Your task to perform on an android device: turn vacation reply on in the gmail app Image 0: 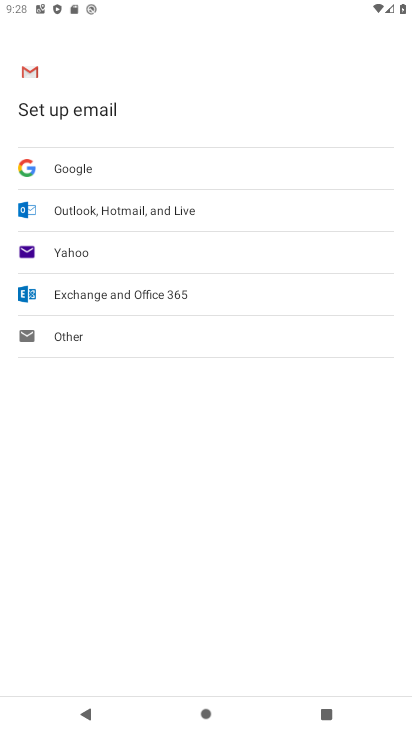
Step 0: press home button
Your task to perform on an android device: turn vacation reply on in the gmail app Image 1: 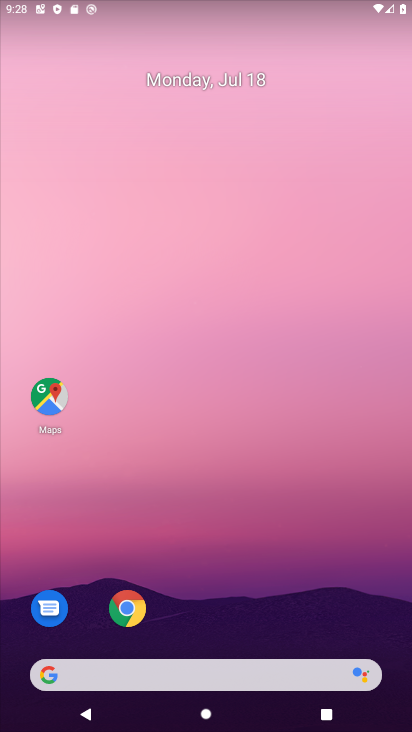
Step 1: drag from (183, 646) to (144, 0)
Your task to perform on an android device: turn vacation reply on in the gmail app Image 2: 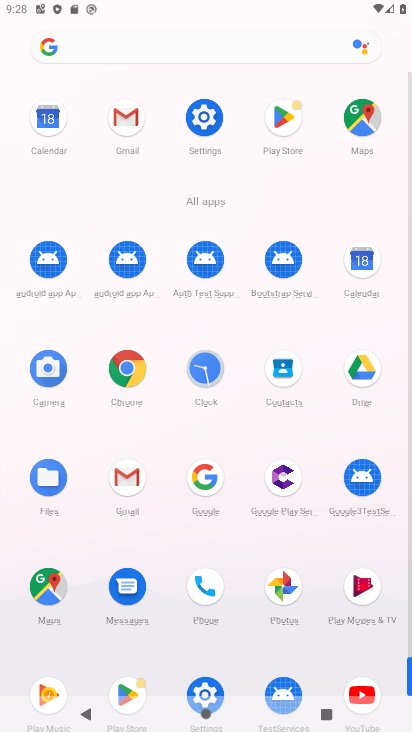
Step 2: click (127, 487)
Your task to perform on an android device: turn vacation reply on in the gmail app Image 3: 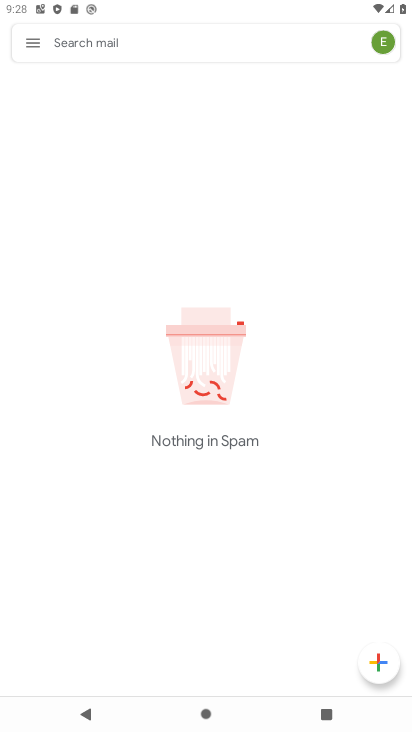
Step 3: click (33, 37)
Your task to perform on an android device: turn vacation reply on in the gmail app Image 4: 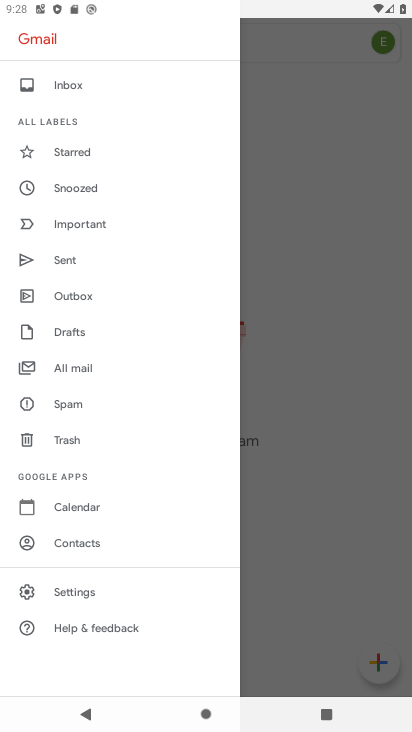
Step 4: click (81, 600)
Your task to perform on an android device: turn vacation reply on in the gmail app Image 5: 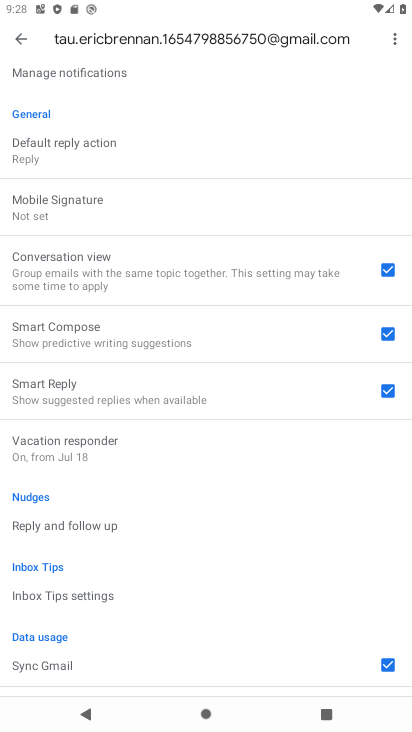
Step 5: click (86, 456)
Your task to perform on an android device: turn vacation reply on in the gmail app Image 6: 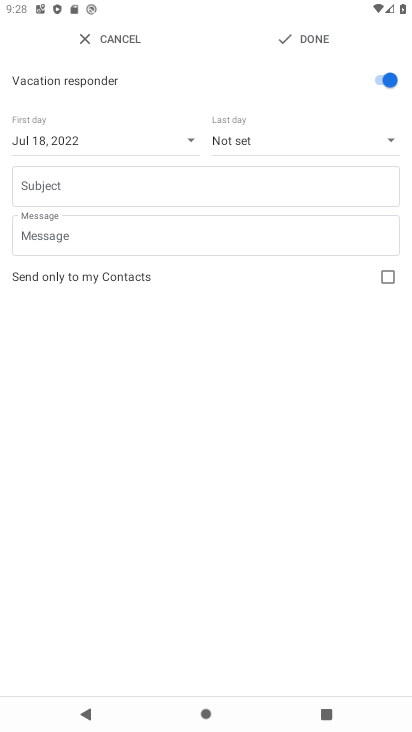
Step 6: task complete